Your task to perform on an android device: open sync settings in chrome Image 0: 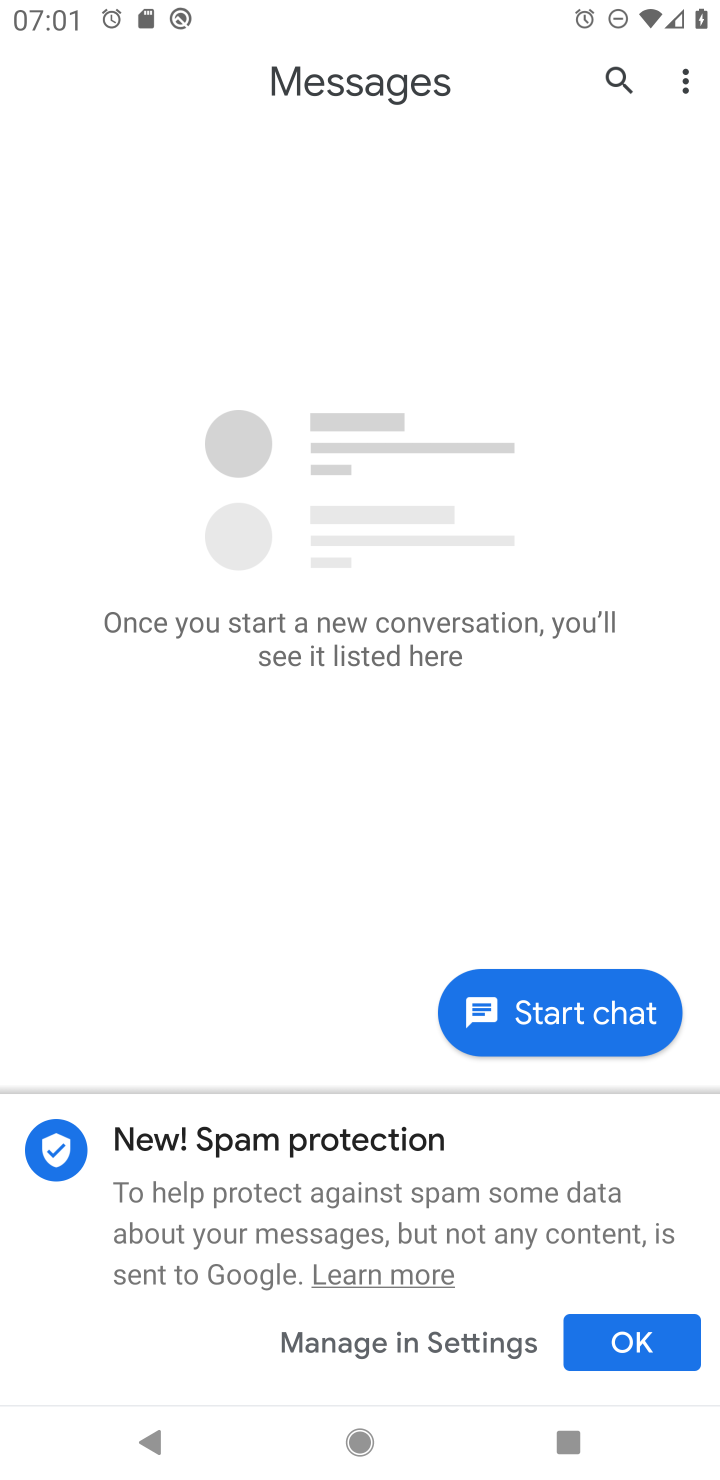
Step 0: press home button
Your task to perform on an android device: open sync settings in chrome Image 1: 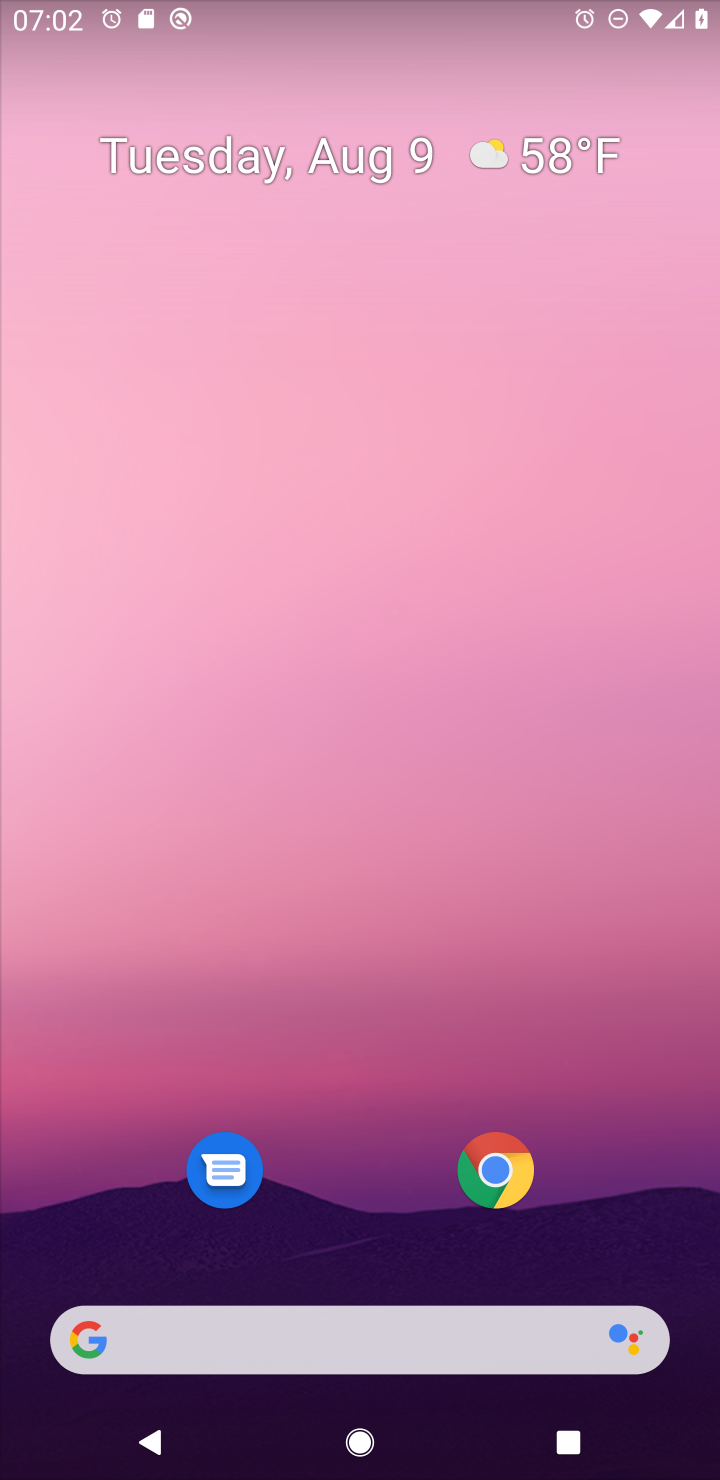
Step 1: click (511, 1173)
Your task to perform on an android device: open sync settings in chrome Image 2: 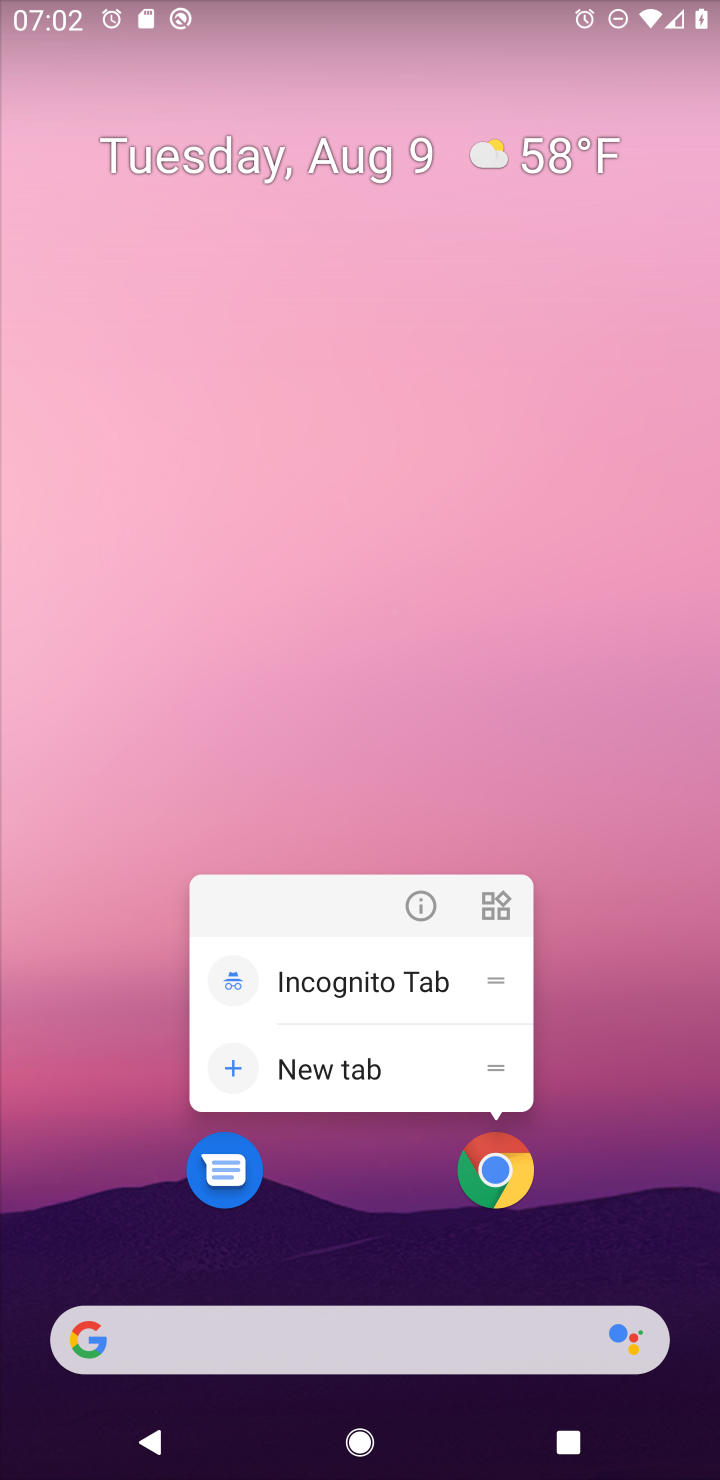
Step 2: click (511, 1173)
Your task to perform on an android device: open sync settings in chrome Image 3: 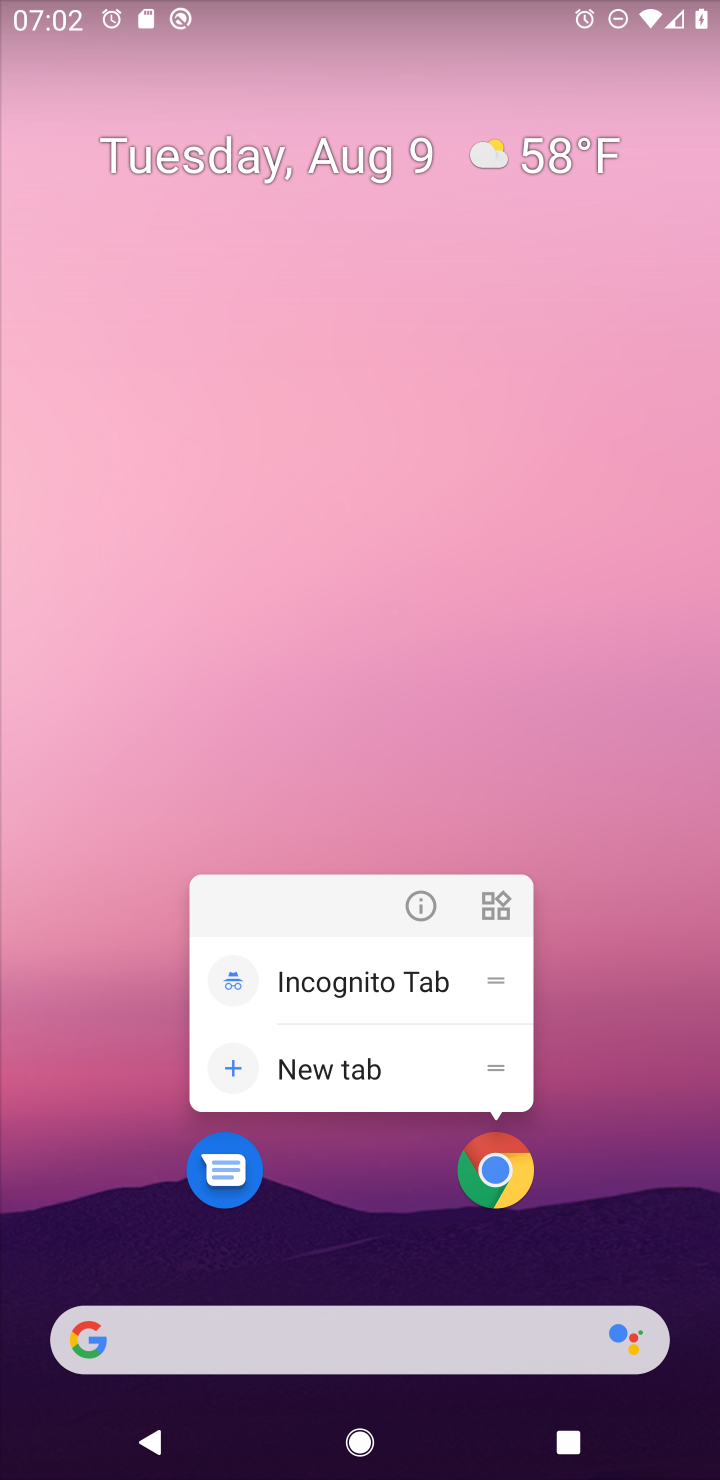
Step 3: click (511, 1173)
Your task to perform on an android device: open sync settings in chrome Image 4: 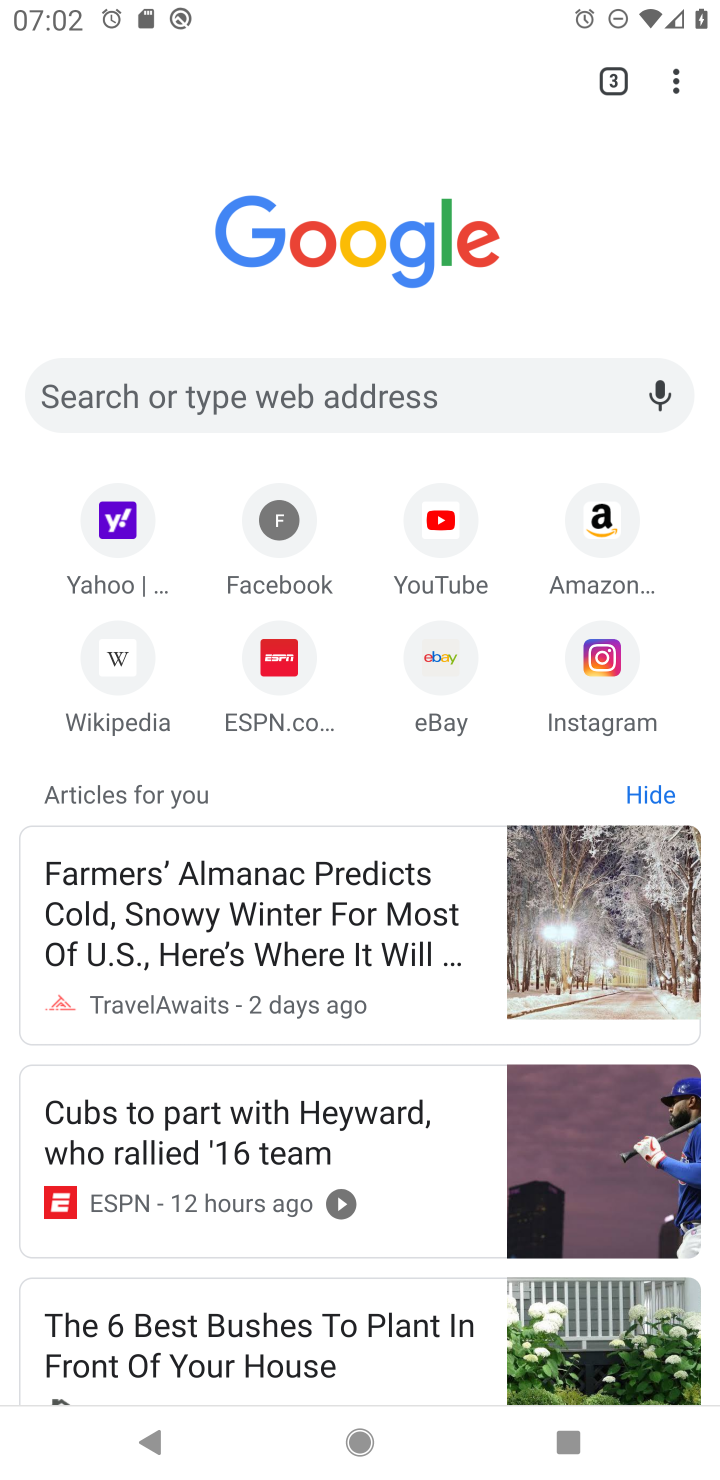
Step 4: click (678, 78)
Your task to perform on an android device: open sync settings in chrome Image 5: 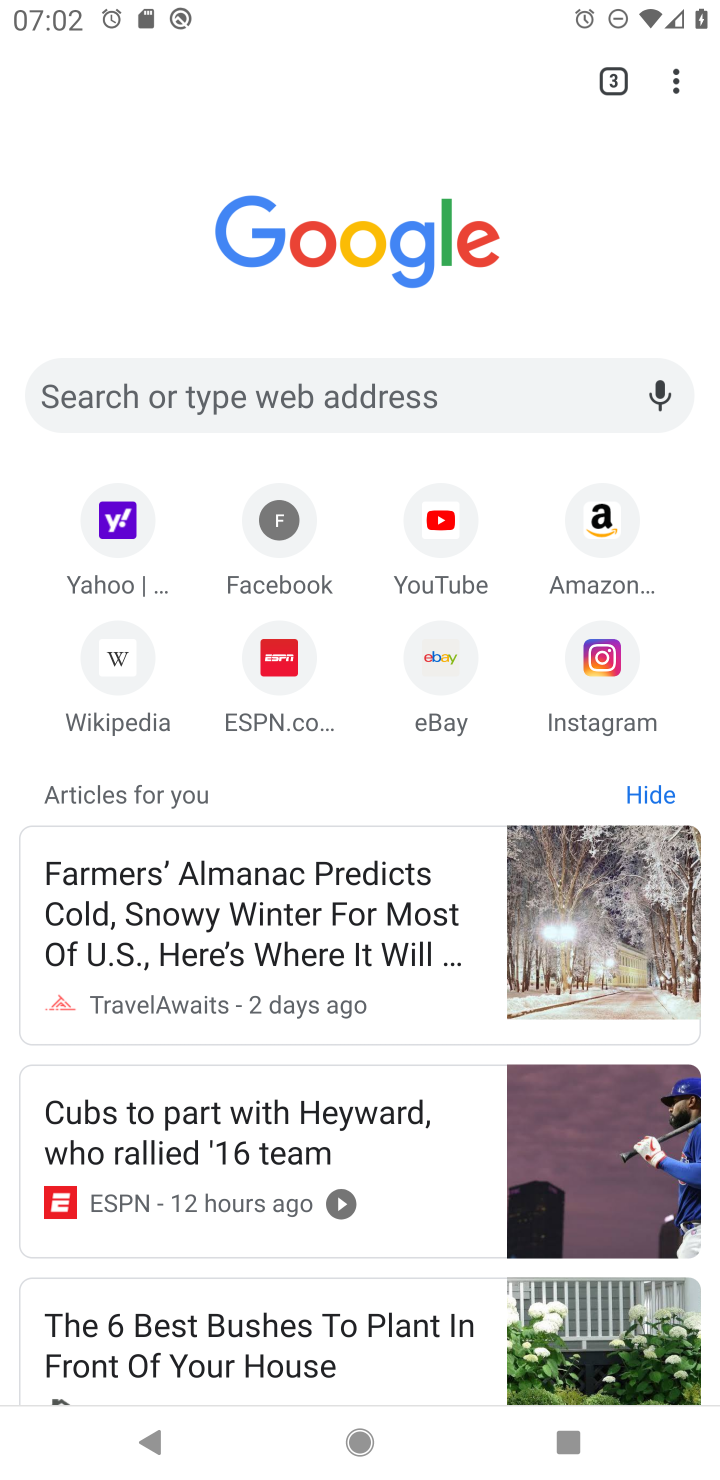
Step 5: drag from (678, 78) to (388, 680)
Your task to perform on an android device: open sync settings in chrome Image 6: 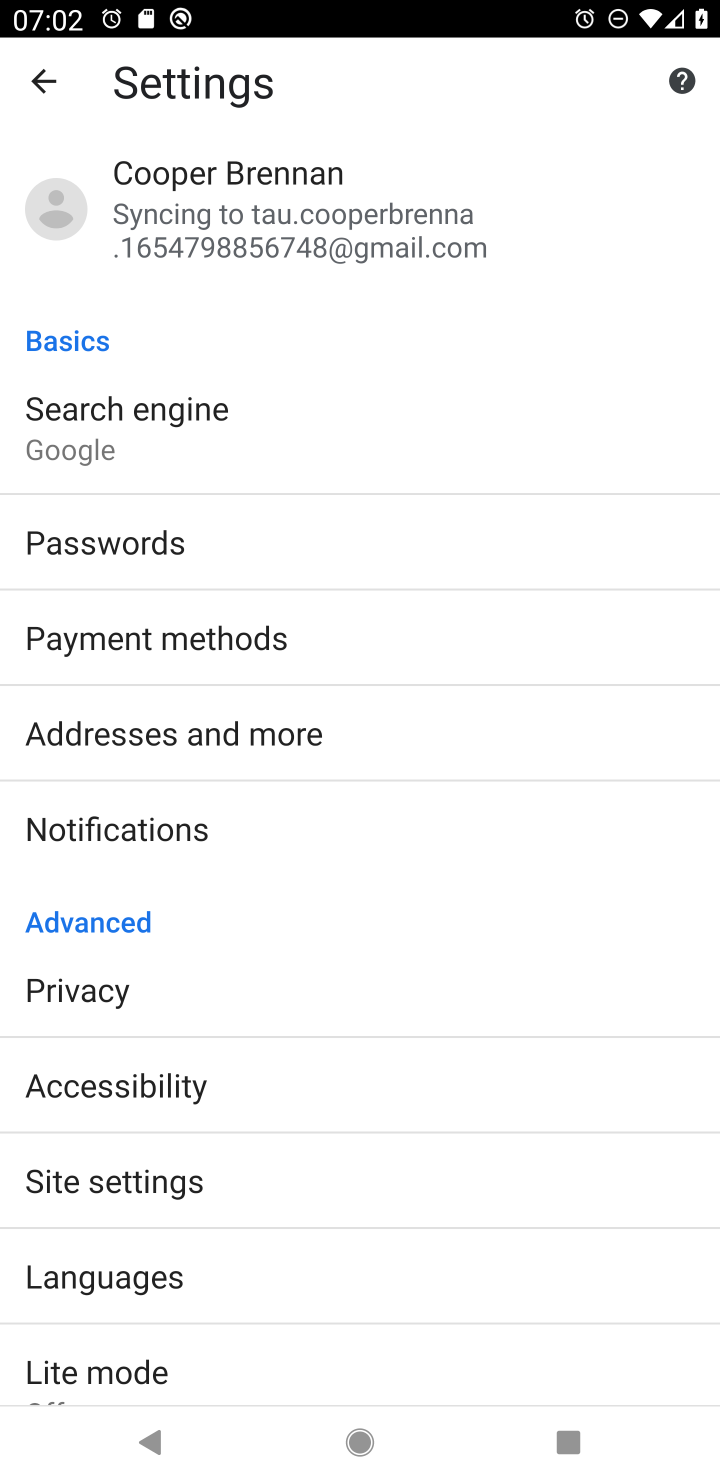
Step 6: click (288, 203)
Your task to perform on an android device: open sync settings in chrome Image 7: 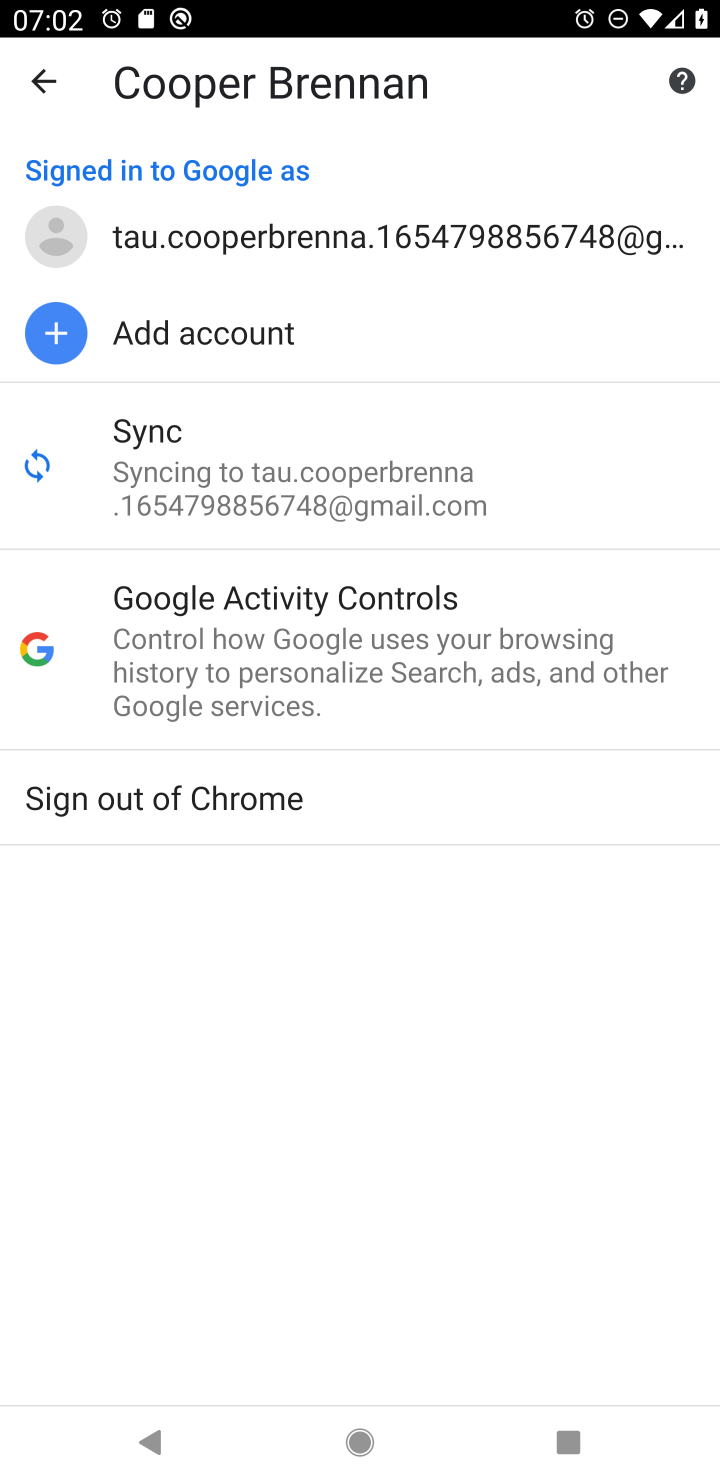
Step 7: task complete